Your task to perform on an android device: toggle show notifications on the lock screen Image 0: 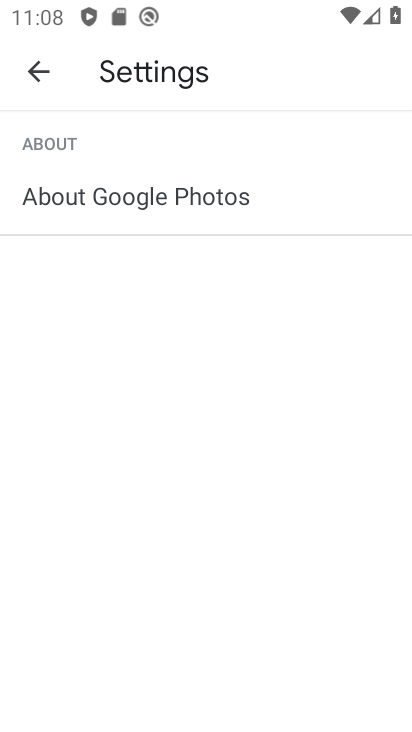
Step 0: task complete